Your task to perform on an android device: turn off location history Image 0: 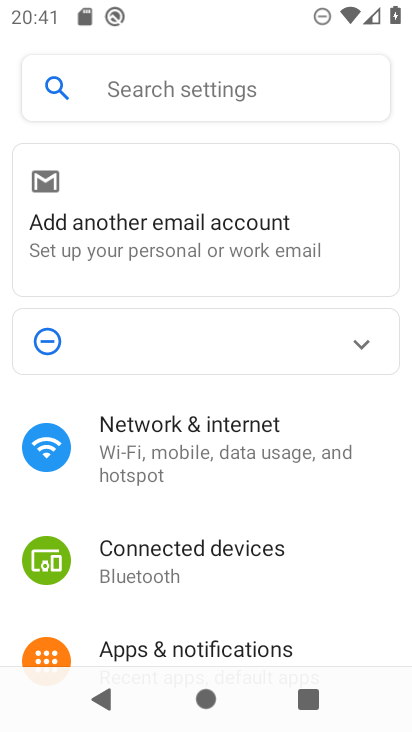
Step 0: press home button
Your task to perform on an android device: turn off location history Image 1: 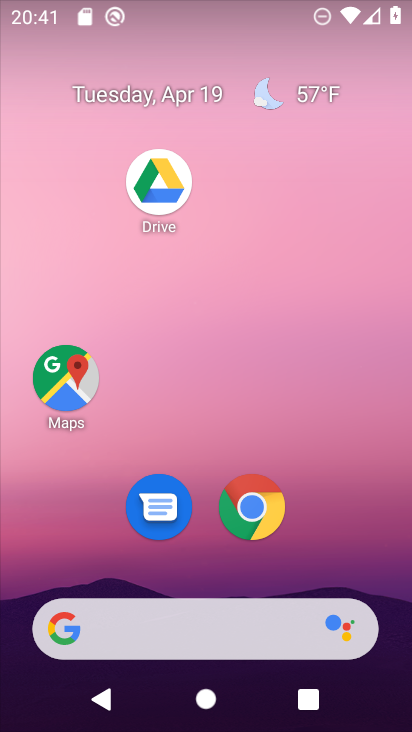
Step 1: drag from (322, 491) to (367, 76)
Your task to perform on an android device: turn off location history Image 2: 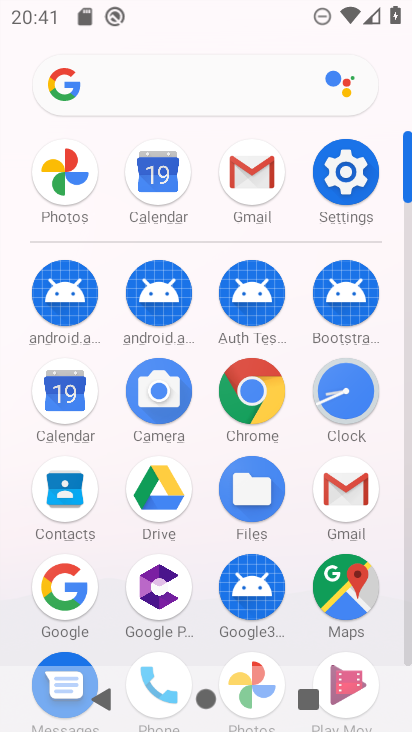
Step 2: click (352, 168)
Your task to perform on an android device: turn off location history Image 3: 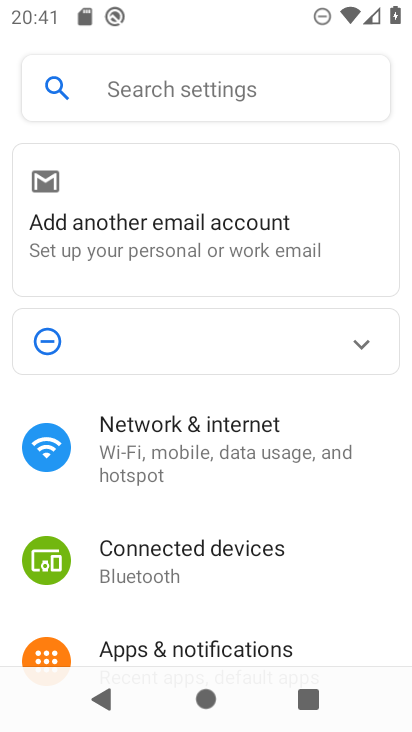
Step 3: drag from (260, 601) to (251, 156)
Your task to perform on an android device: turn off location history Image 4: 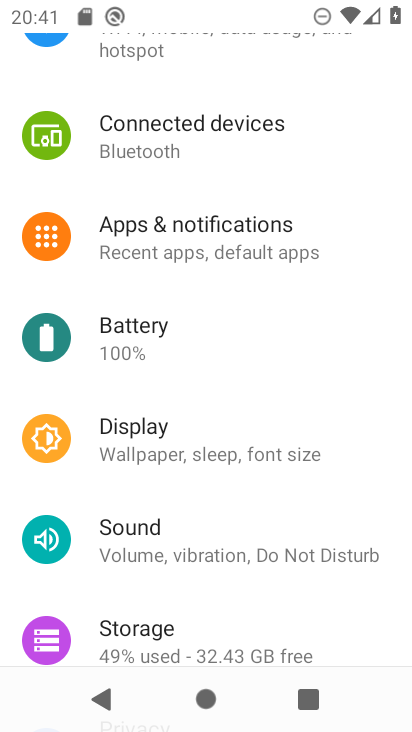
Step 4: drag from (228, 567) to (221, 102)
Your task to perform on an android device: turn off location history Image 5: 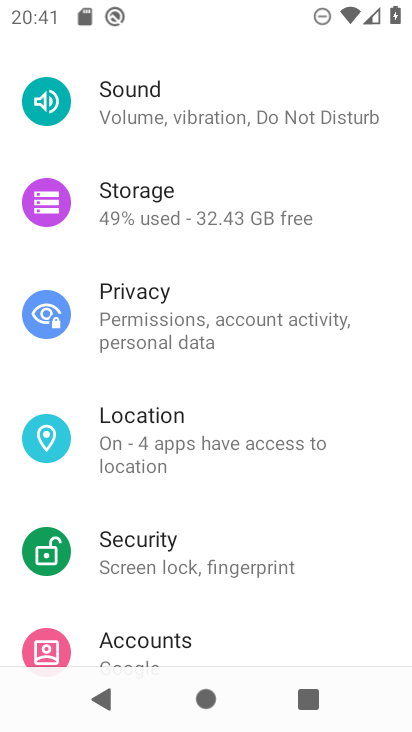
Step 5: click (209, 430)
Your task to perform on an android device: turn off location history Image 6: 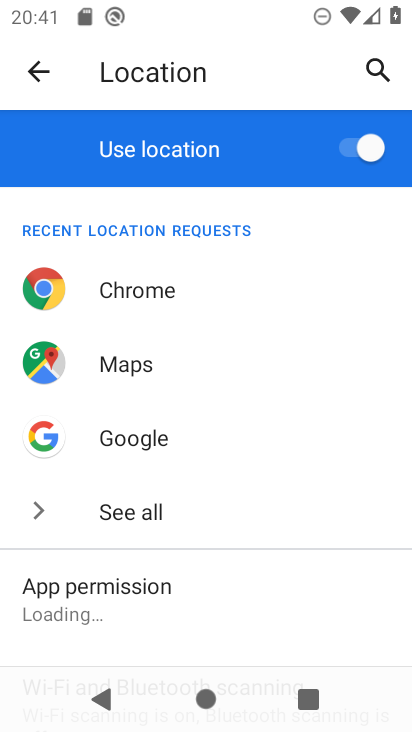
Step 6: drag from (250, 586) to (227, 186)
Your task to perform on an android device: turn off location history Image 7: 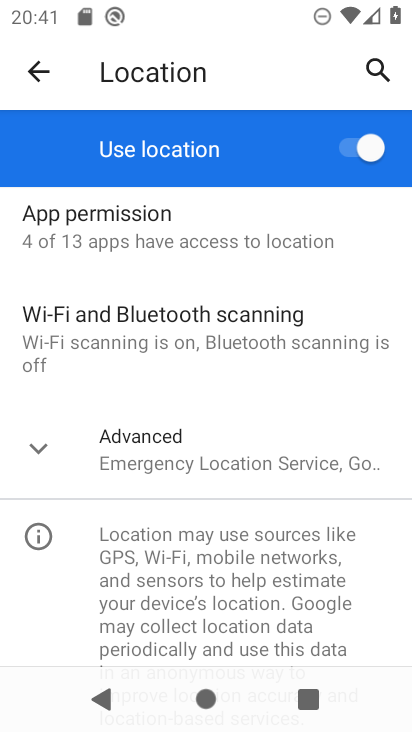
Step 7: click (41, 445)
Your task to perform on an android device: turn off location history Image 8: 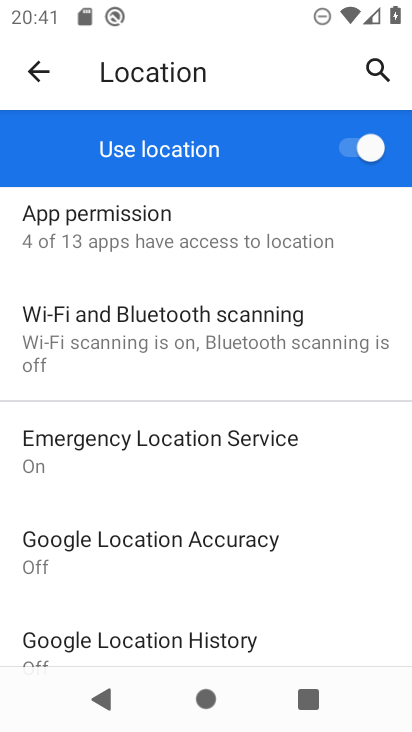
Step 8: drag from (301, 594) to (297, 323)
Your task to perform on an android device: turn off location history Image 9: 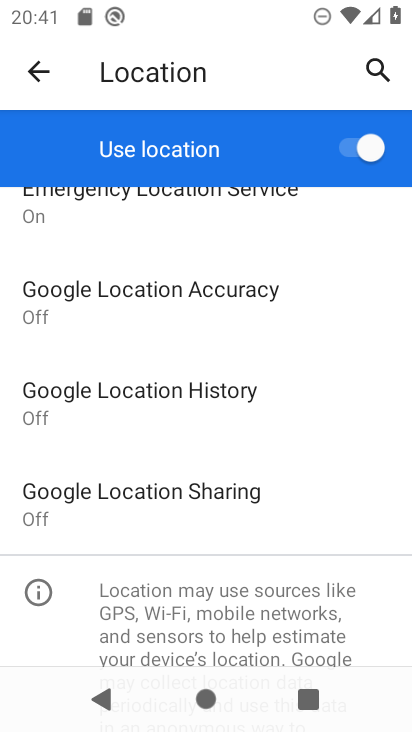
Step 9: click (238, 402)
Your task to perform on an android device: turn off location history Image 10: 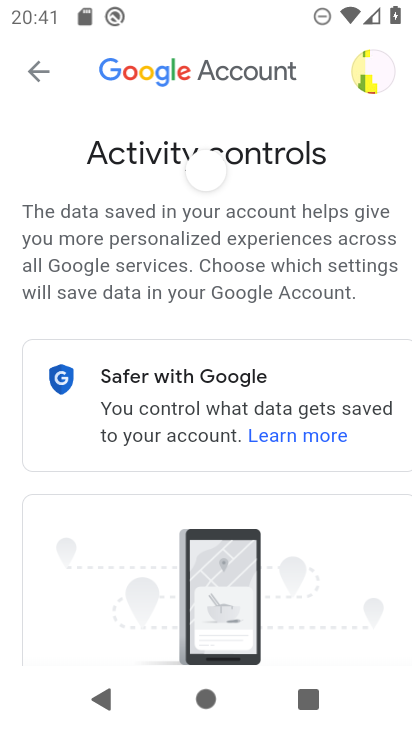
Step 10: task complete